Your task to perform on an android device: Clear the cart on target.com. Image 0: 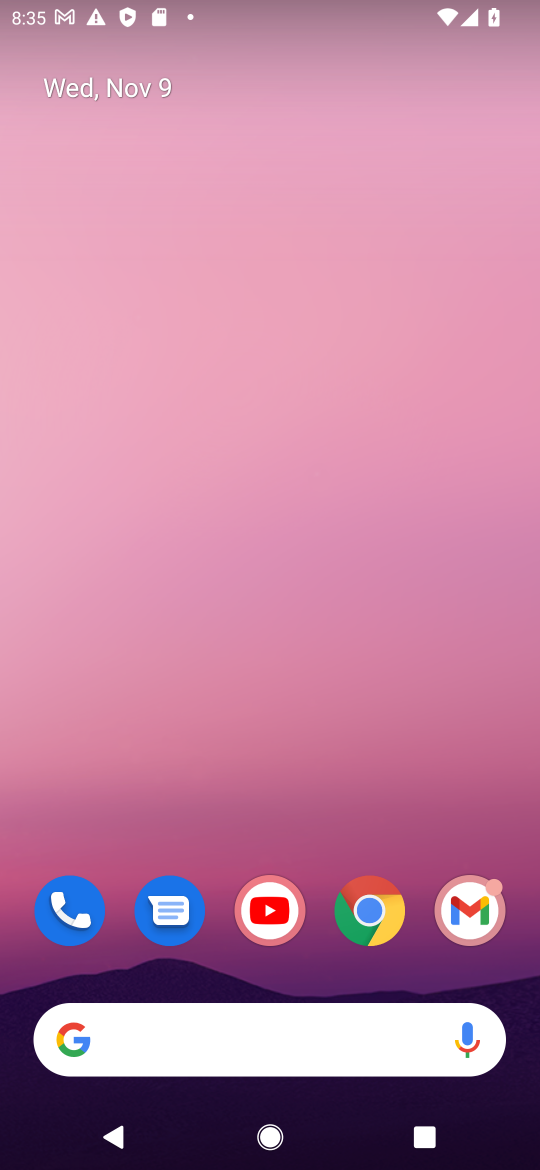
Step 0: click (366, 919)
Your task to perform on an android device: Clear the cart on target.com. Image 1: 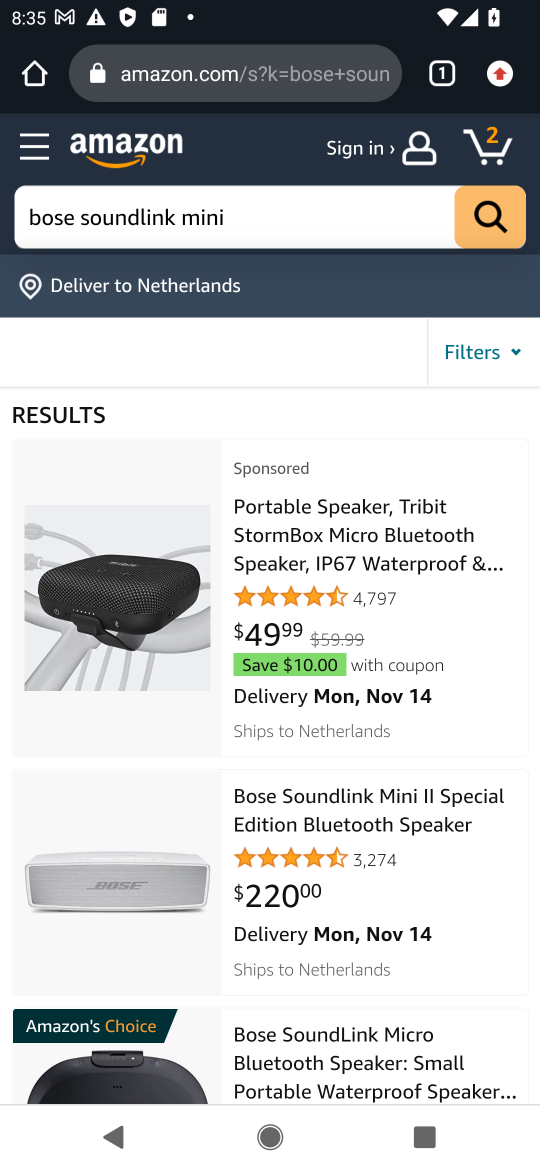
Step 1: click (195, 84)
Your task to perform on an android device: Clear the cart on target.com. Image 2: 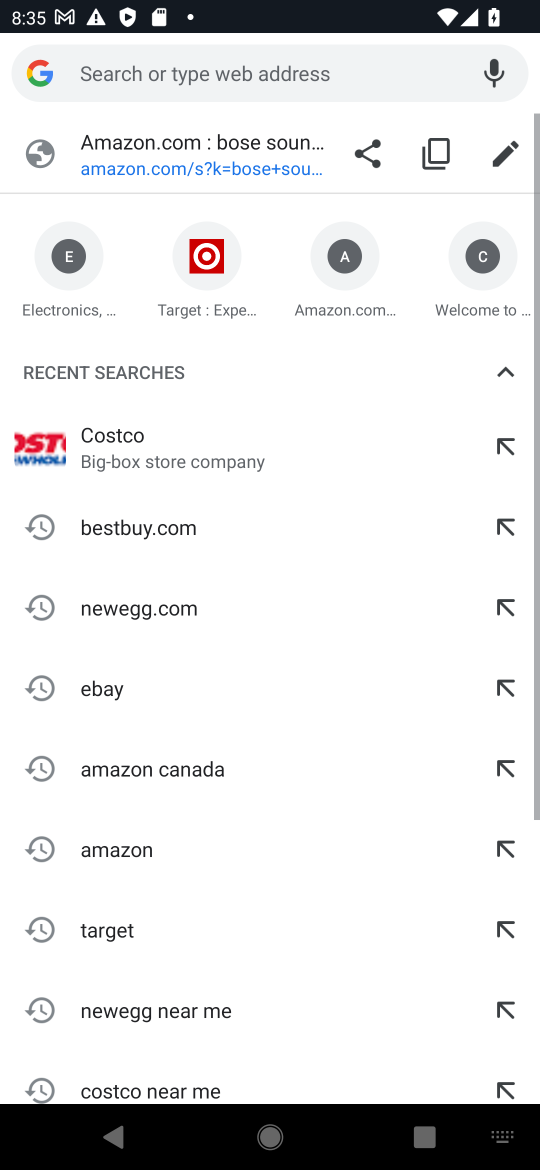
Step 2: click (194, 289)
Your task to perform on an android device: Clear the cart on target.com. Image 3: 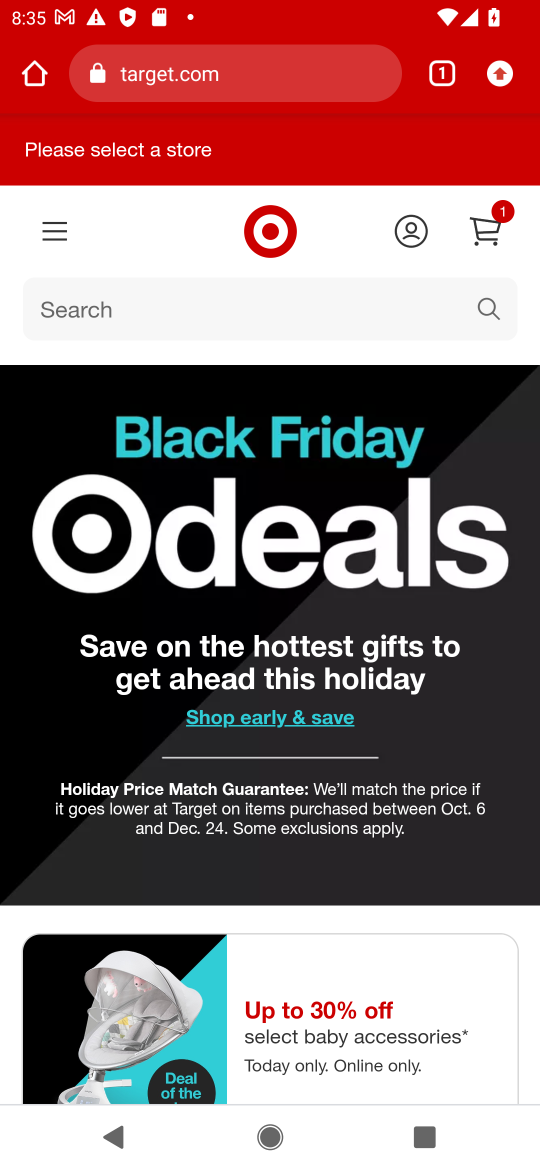
Step 3: click (491, 235)
Your task to perform on an android device: Clear the cart on target.com. Image 4: 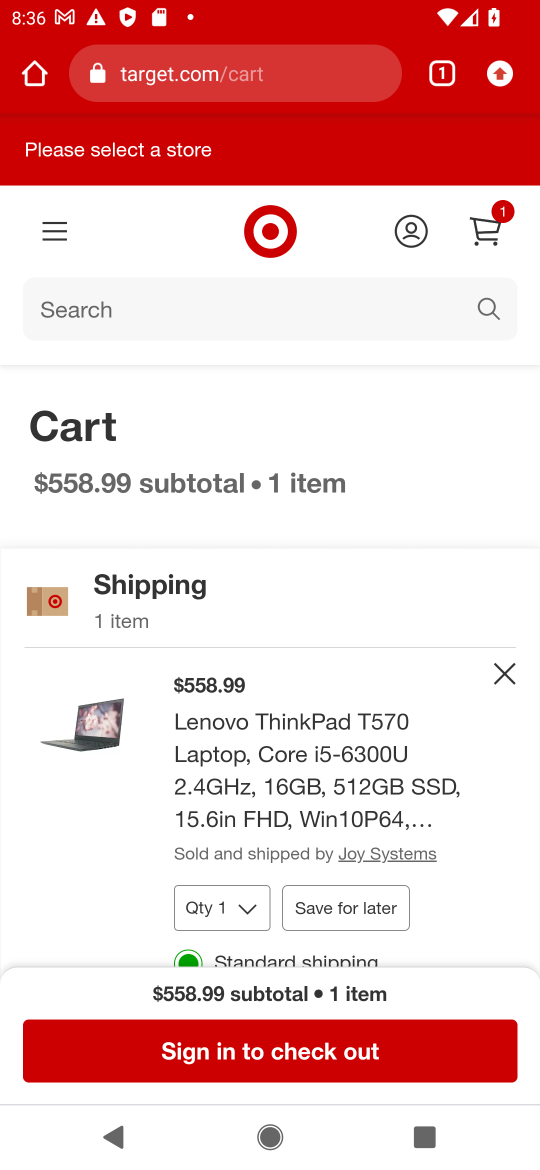
Step 4: click (513, 673)
Your task to perform on an android device: Clear the cart on target.com. Image 5: 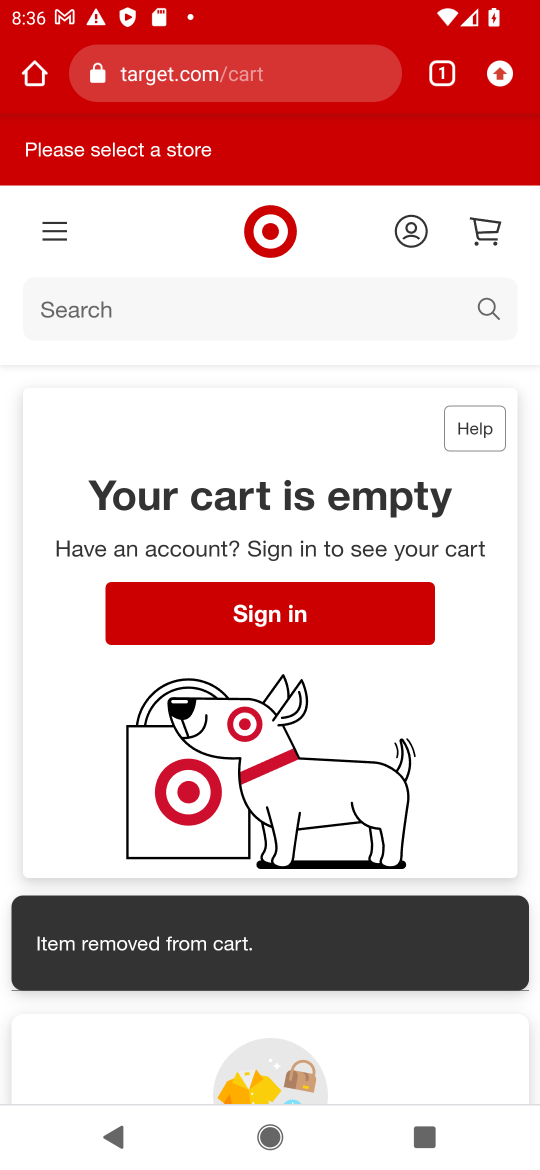
Step 5: task complete